Your task to perform on an android device: visit the assistant section in the google photos Image 0: 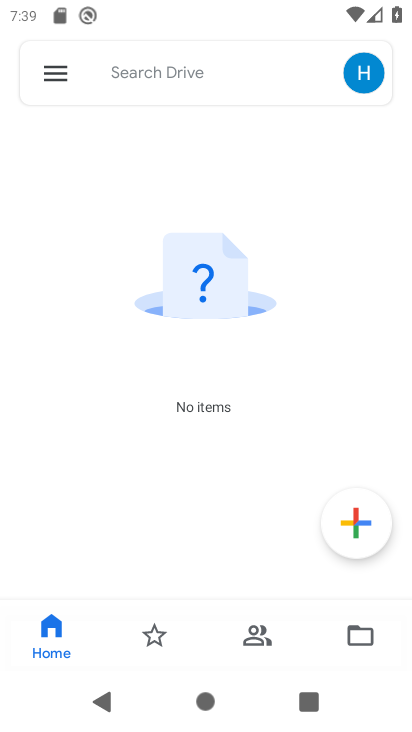
Step 0: press home button
Your task to perform on an android device: visit the assistant section in the google photos Image 1: 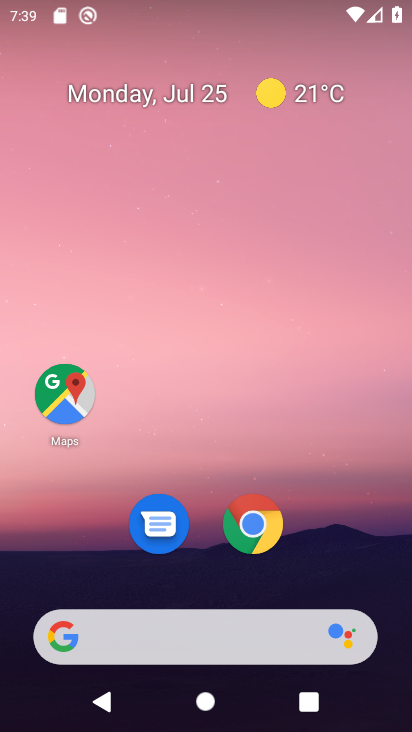
Step 1: drag from (172, 625) to (302, 136)
Your task to perform on an android device: visit the assistant section in the google photos Image 2: 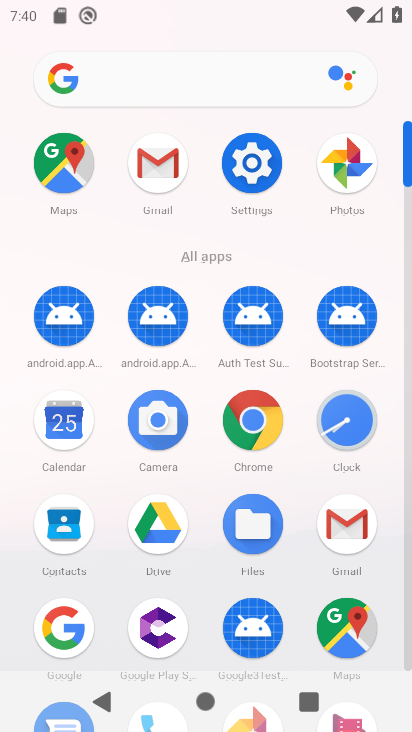
Step 2: click (350, 167)
Your task to perform on an android device: visit the assistant section in the google photos Image 3: 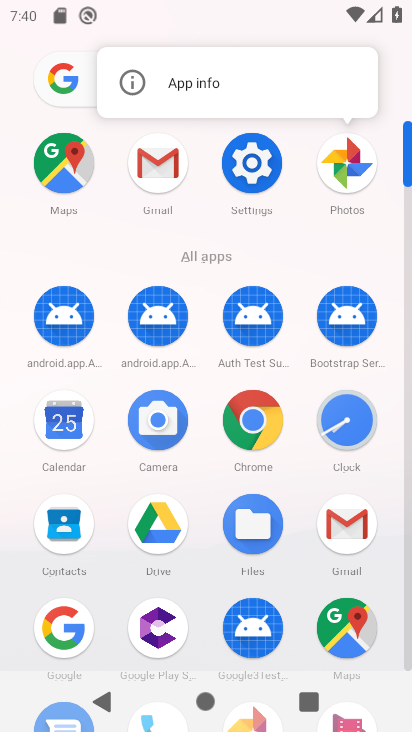
Step 3: click (350, 167)
Your task to perform on an android device: visit the assistant section in the google photos Image 4: 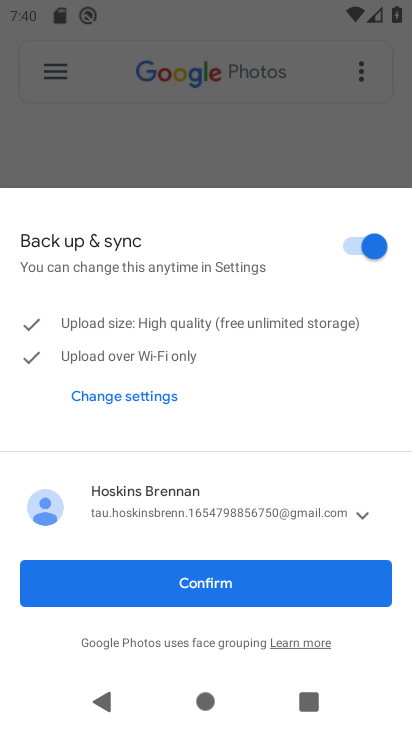
Step 4: click (219, 581)
Your task to perform on an android device: visit the assistant section in the google photos Image 5: 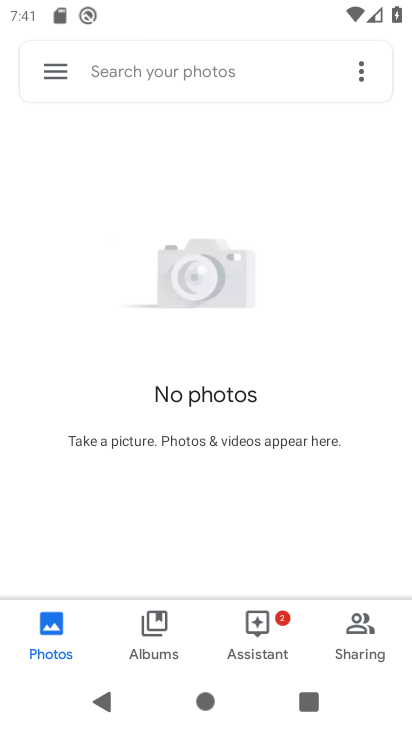
Step 5: click (261, 635)
Your task to perform on an android device: visit the assistant section in the google photos Image 6: 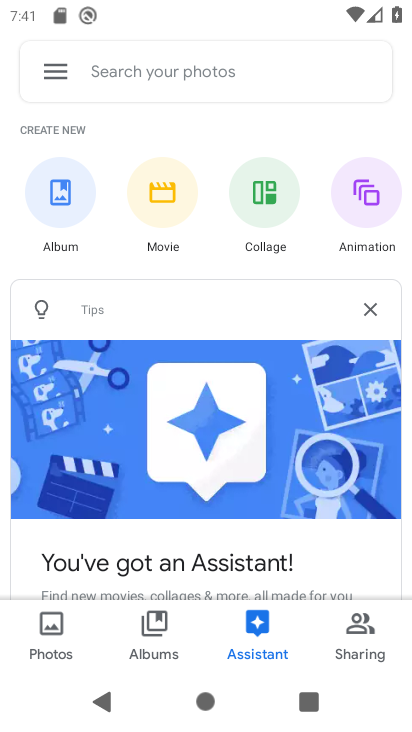
Step 6: task complete